Your task to perform on an android device: Search for Mexican restaurants on Maps Image 0: 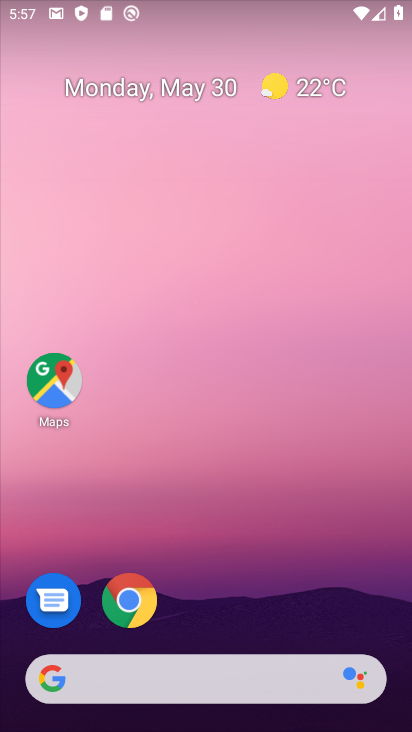
Step 0: click (62, 396)
Your task to perform on an android device: Search for Mexican restaurants on Maps Image 1: 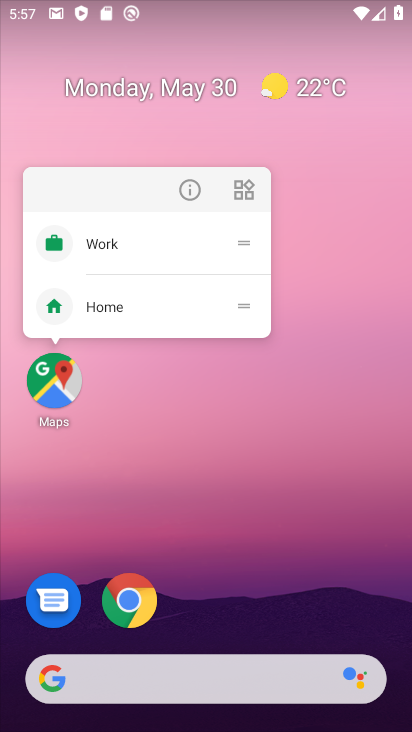
Step 1: drag from (318, 626) to (291, 28)
Your task to perform on an android device: Search for Mexican restaurants on Maps Image 2: 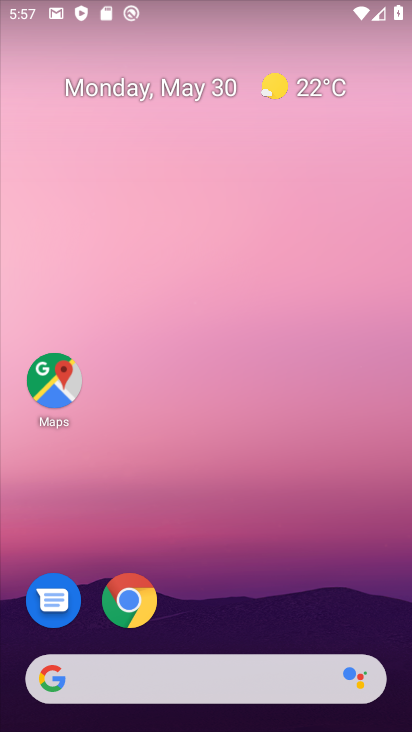
Step 2: drag from (274, 613) to (263, 70)
Your task to perform on an android device: Search for Mexican restaurants on Maps Image 3: 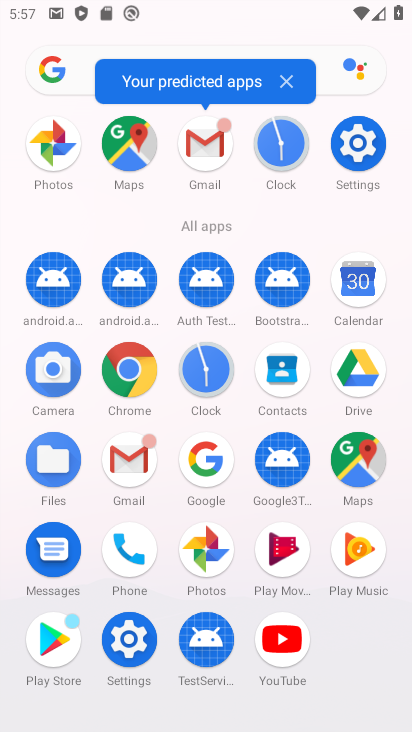
Step 3: click (125, 158)
Your task to perform on an android device: Search for Mexican restaurants on Maps Image 4: 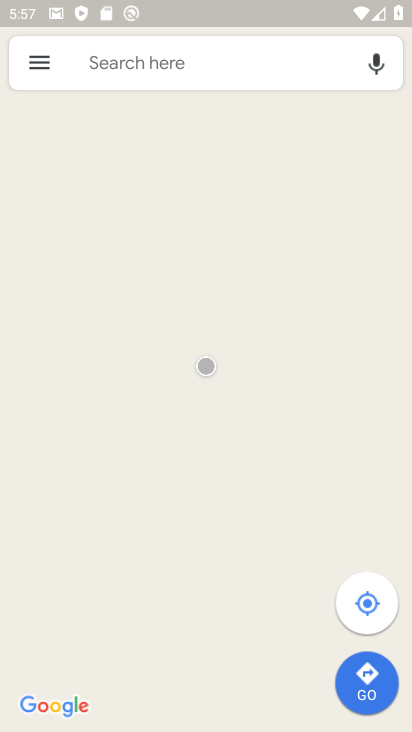
Step 4: click (187, 65)
Your task to perform on an android device: Search for Mexican restaurants on Maps Image 5: 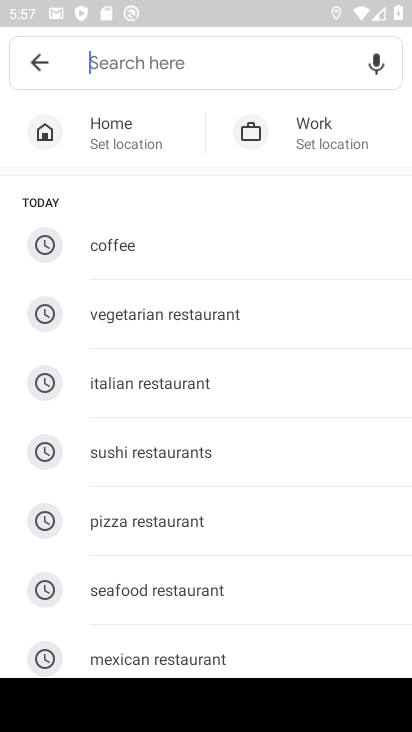
Step 5: click (169, 662)
Your task to perform on an android device: Search for Mexican restaurants on Maps Image 6: 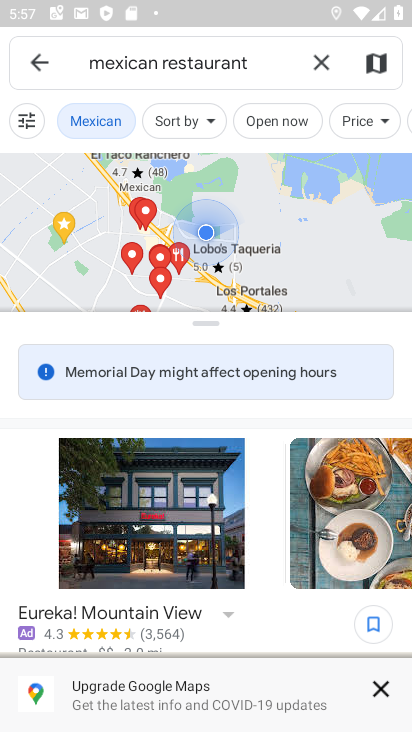
Step 6: task complete